Your task to perform on an android device: clear history in the chrome app Image 0: 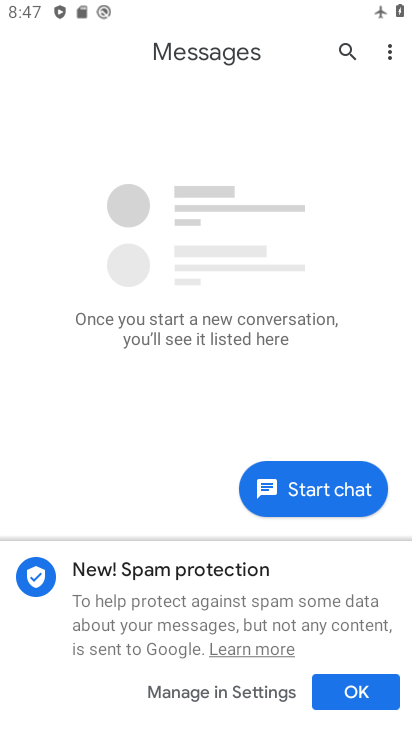
Step 0: press home button
Your task to perform on an android device: clear history in the chrome app Image 1: 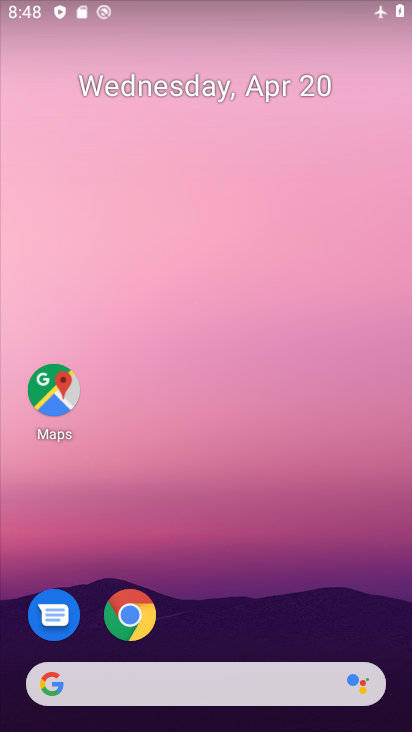
Step 1: click (131, 615)
Your task to perform on an android device: clear history in the chrome app Image 2: 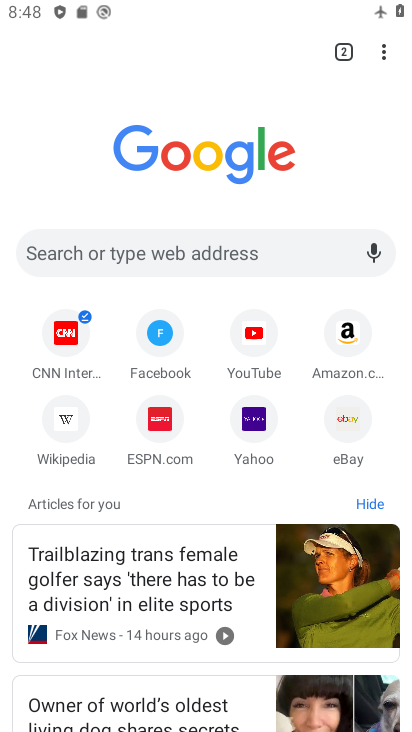
Step 2: click (384, 47)
Your task to perform on an android device: clear history in the chrome app Image 3: 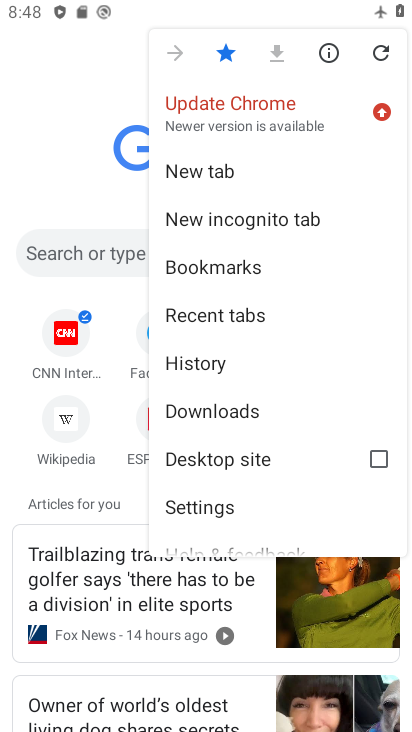
Step 3: click (211, 362)
Your task to perform on an android device: clear history in the chrome app Image 4: 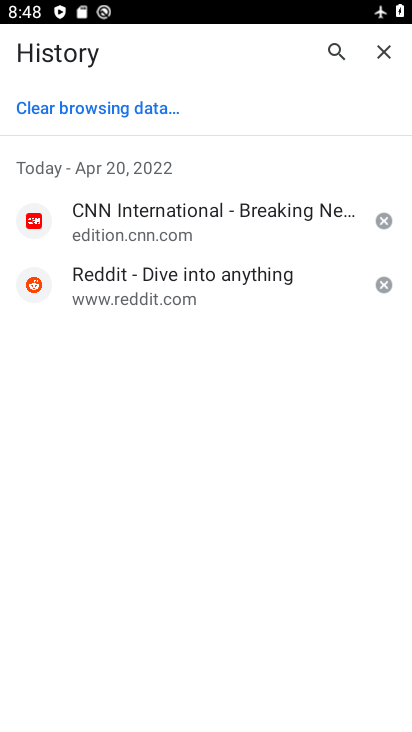
Step 4: click (106, 108)
Your task to perform on an android device: clear history in the chrome app Image 5: 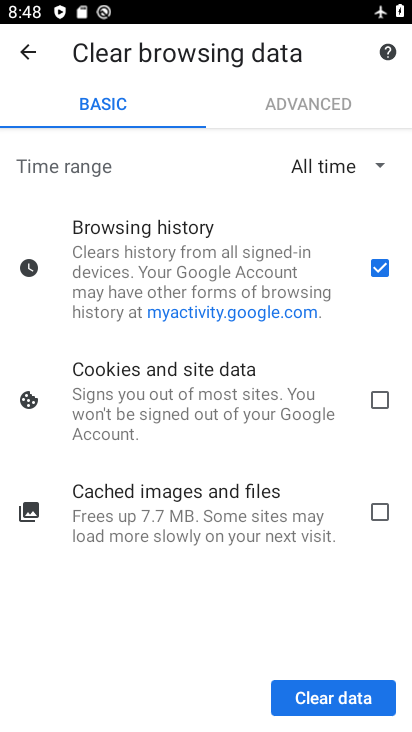
Step 5: click (329, 698)
Your task to perform on an android device: clear history in the chrome app Image 6: 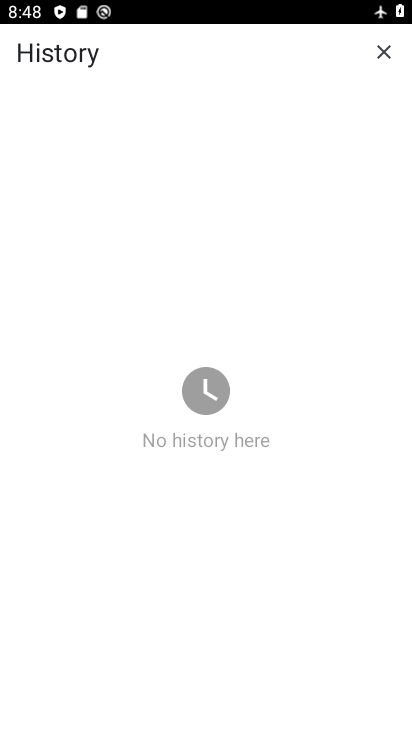
Step 6: task complete